Your task to perform on an android device: Search for Italian restaurants on Maps Image 0: 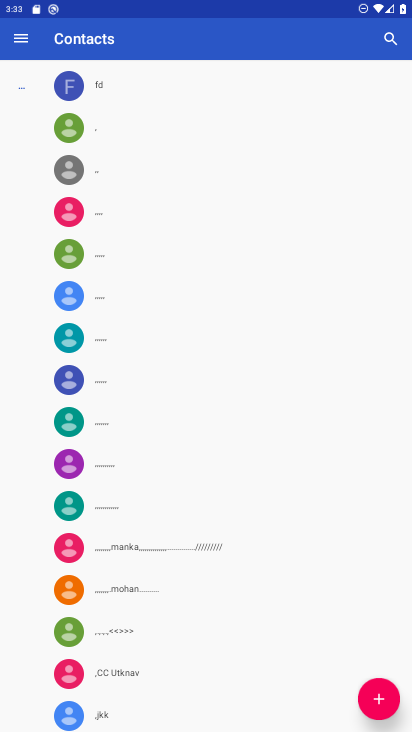
Step 0: press home button
Your task to perform on an android device: Search for Italian restaurants on Maps Image 1: 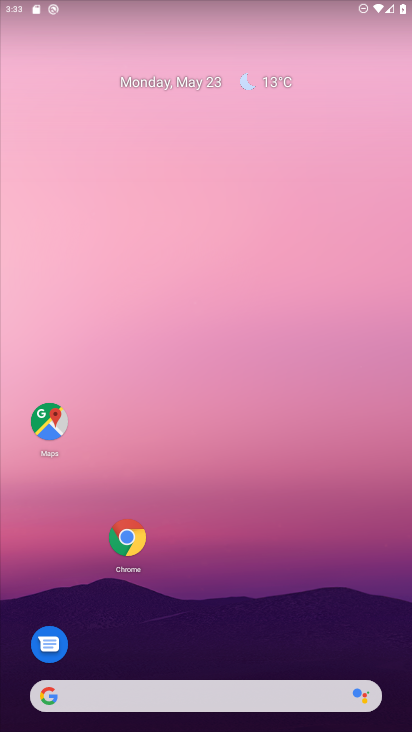
Step 1: drag from (316, 570) to (239, 235)
Your task to perform on an android device: Search for Italian restaurants on Maps Image 2: 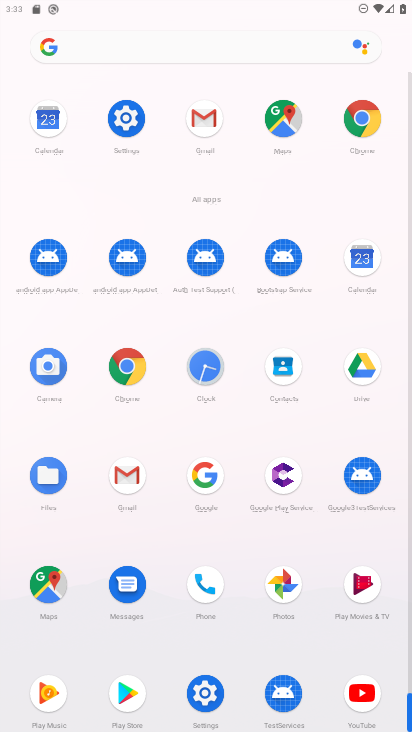
Step 2: click (279, 129)
Your task to perform on an android device: Search for Italian restaurants on Maps Image 3: 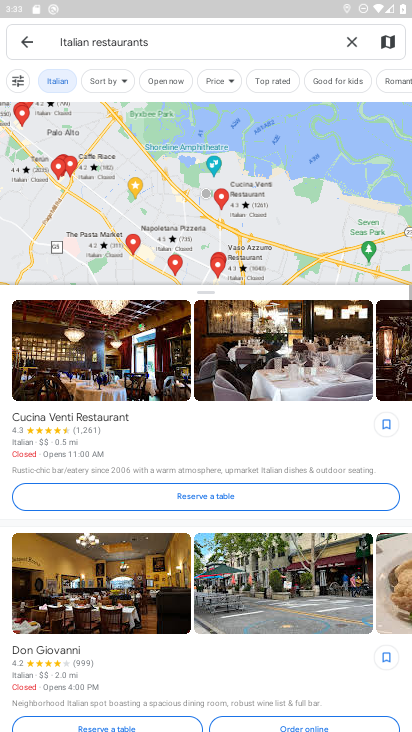
Step 3: click (219, 48)
Your task to perform on an android device: Search for Italian restaurants on Maps Image 4: 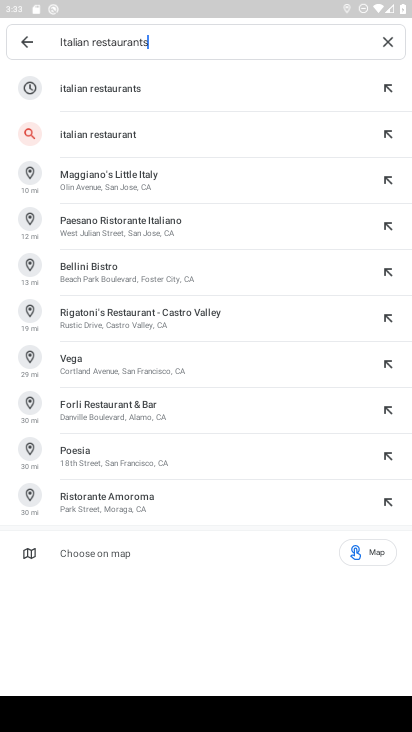
Step 4: click (138, 89)
Your task to perform on an android device: Search for Italian restaurants on Maps Image 5: 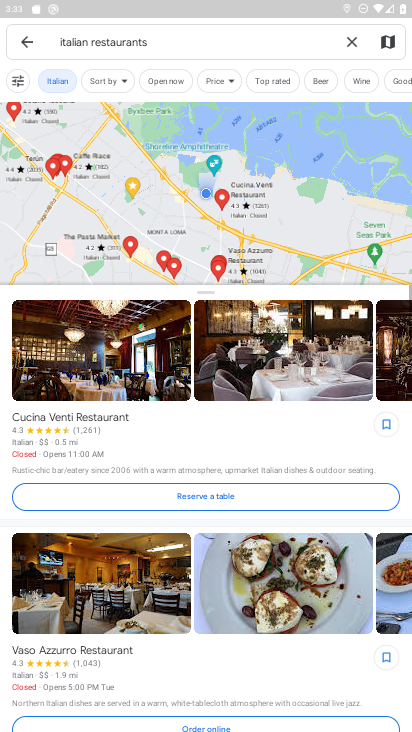
Step 5: task complete